Your task to perform on an android device: Open Google Maps and go to "Timeline" Image 0: 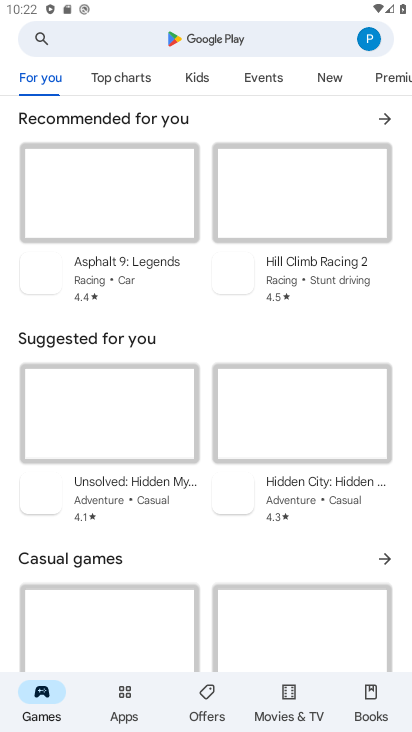
Step 0: press home button
Your task to perform on an android device: Open Google Maps and go to "Timeline" Image 1: 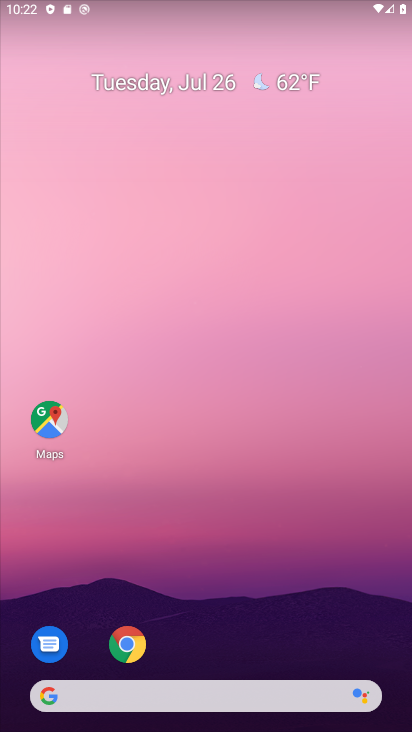
Step 1: click (45, 413)
Your task to perform on an android device: Open Google Maps and go to "Timeline" Image 2: 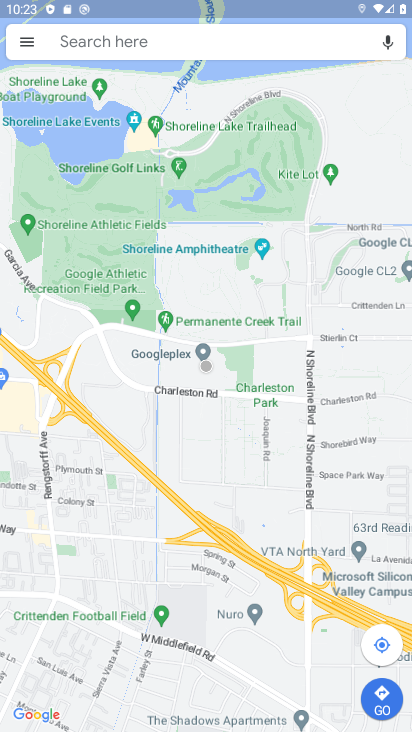
Step 2: click (28, 53)
Your task to perform on an android device: Open Google Maps and go to "Timeline" Image 3: 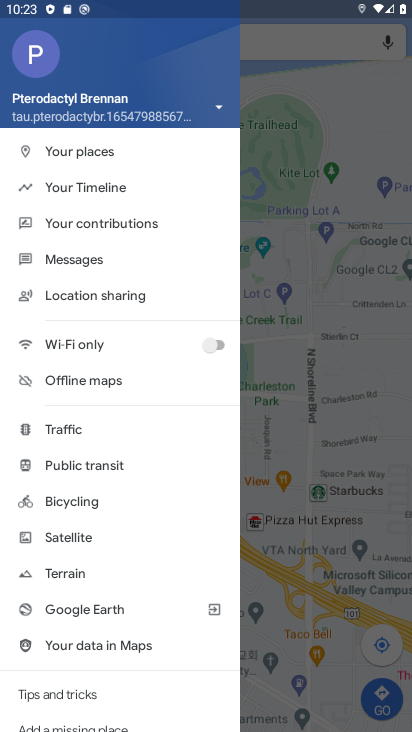
Step 3: click (62, 183)
Your task to perform on an android device: Open Google Maps and go to "Timeline" Image 4: 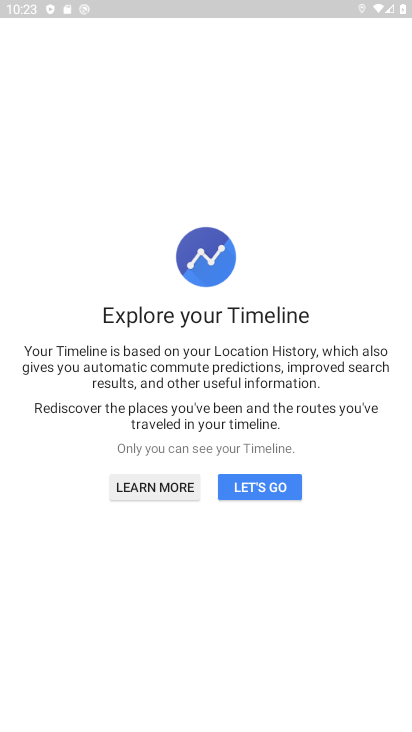
Step 4: click (275, 481)
Your task to perform on an android device: Open Google Maps and go to "Timeline" Image 5: 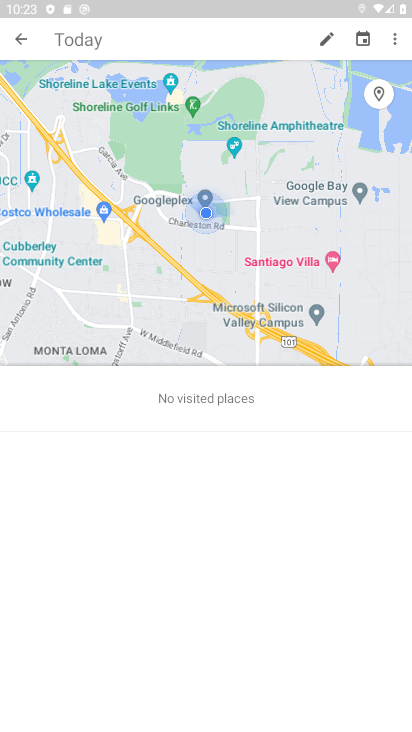
Step 5: task complete